Your task to perform on an android device: Search for sushi restaurants on Maps Image 0: 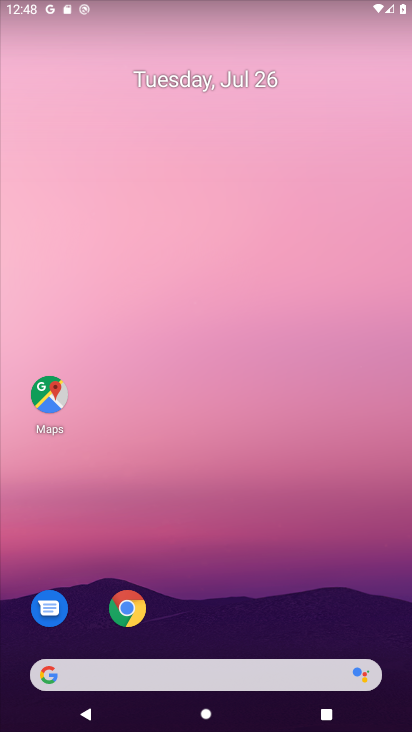
Step 0: click (57, 391)
Your task to perform on an android device: Search for sushi restaurants on Maps Image 1: 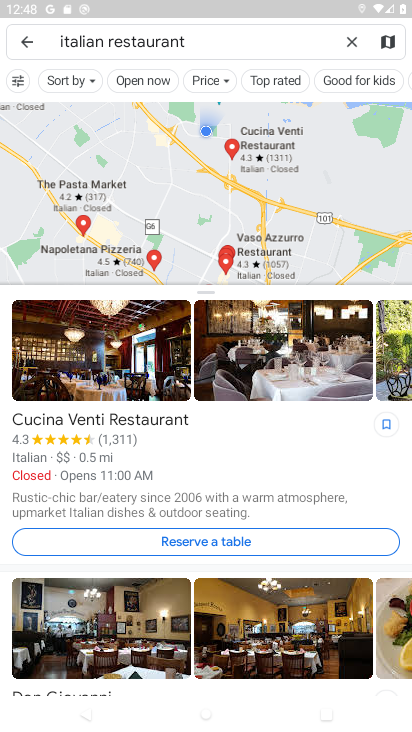
Step 1: click (345, 38)
Your task to perform on an android device: Search for sushi restaurants on Maps Image 2: 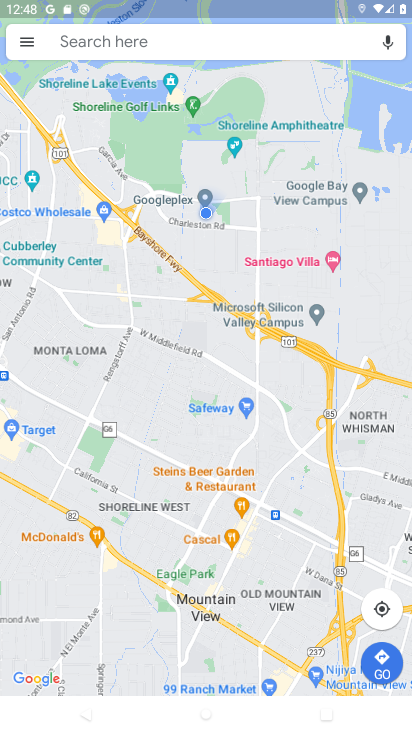
Step 2: click (163, 40)
Your task to perform on an android device: Search for sushi restaurants on Maps Image 3: 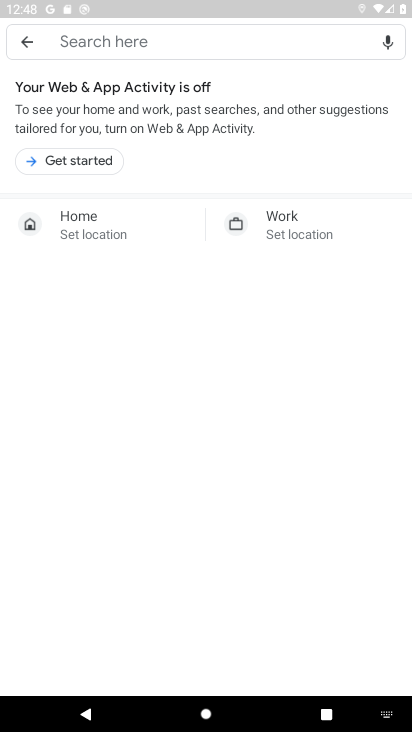
Step 3: type "sushi restaurant"
Your task to perform on an android device: Search for sushi restaurants on Maps Image 4: 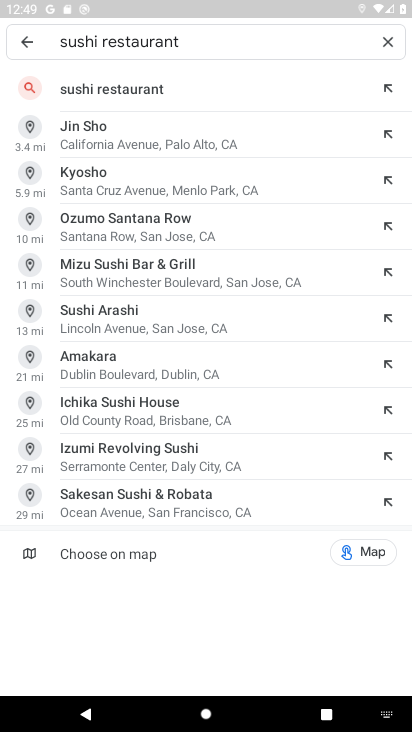
Step 4: click (101, 96)
Your task to perform on an android device: Search for sushi restaurants on Maps Image 5: 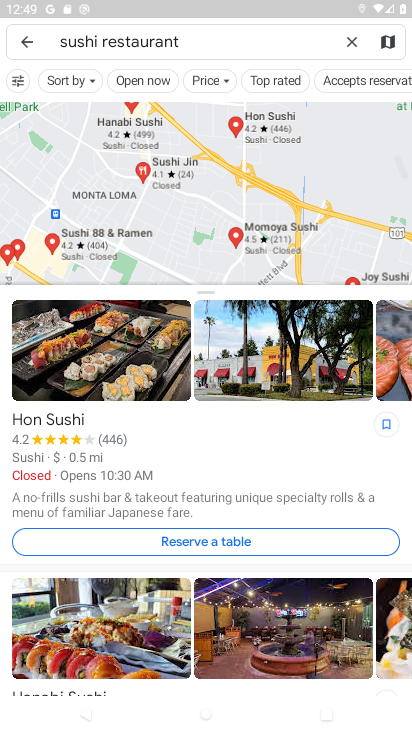
Step 5: task complete